Your task to perform on an android device: turn off picture-in-picture Image 0: 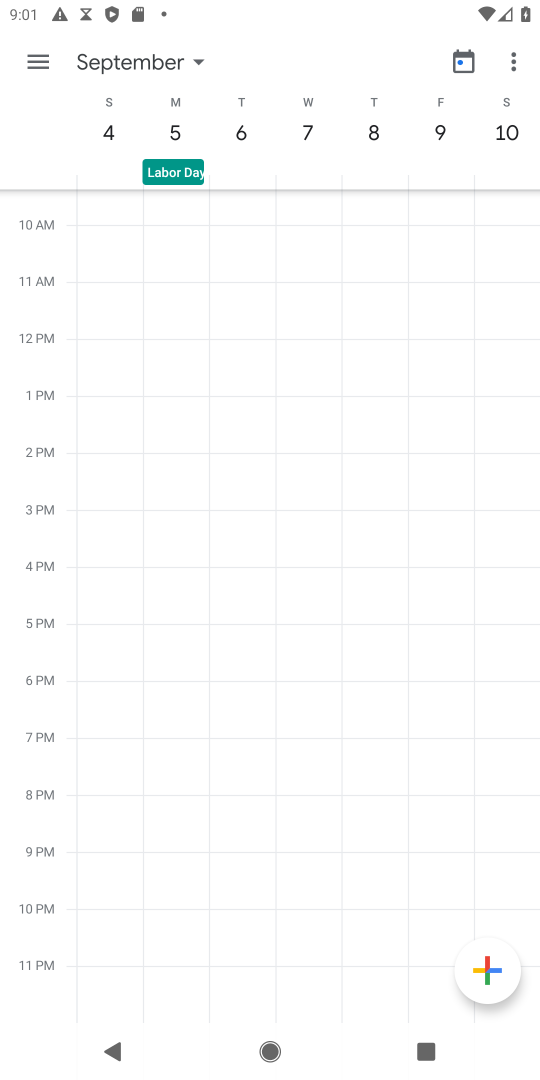
Step 0: press home button
Your task to perform on an android device: turn off picture-in-picture Image 1: 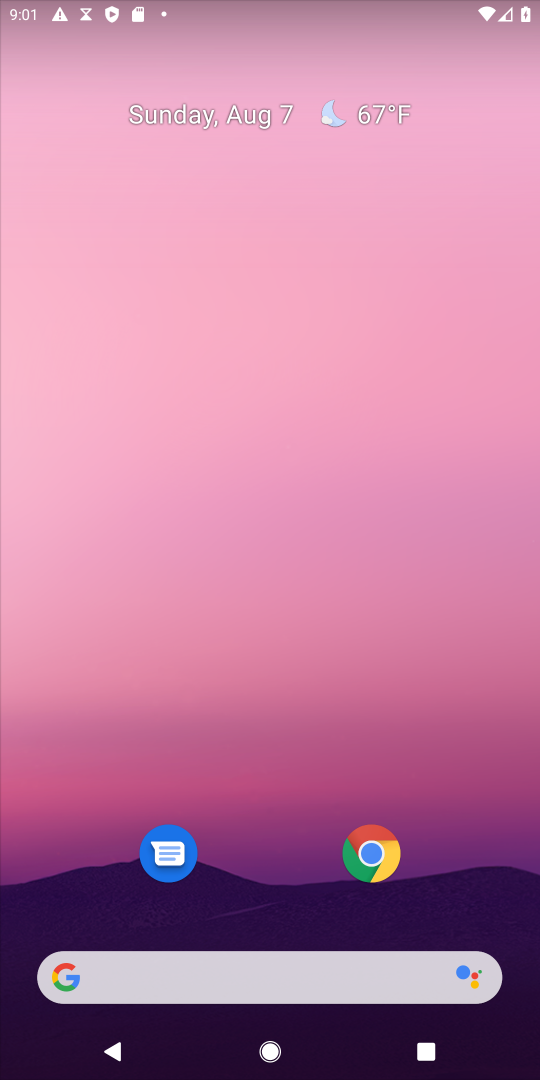
Step 1: drag from (271, 966) to (345, 141)
Your task to perform on an android device: turn off picture-in-picture Image 2: 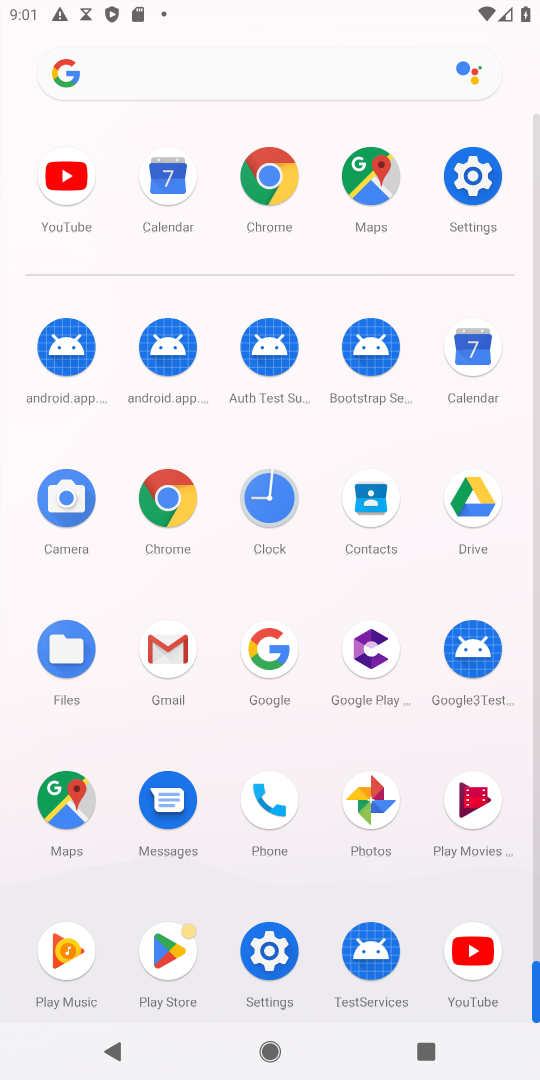
Step 2: click (479, 178)
Your task to perform on an android device: turn off picture-in-picture Image 3: 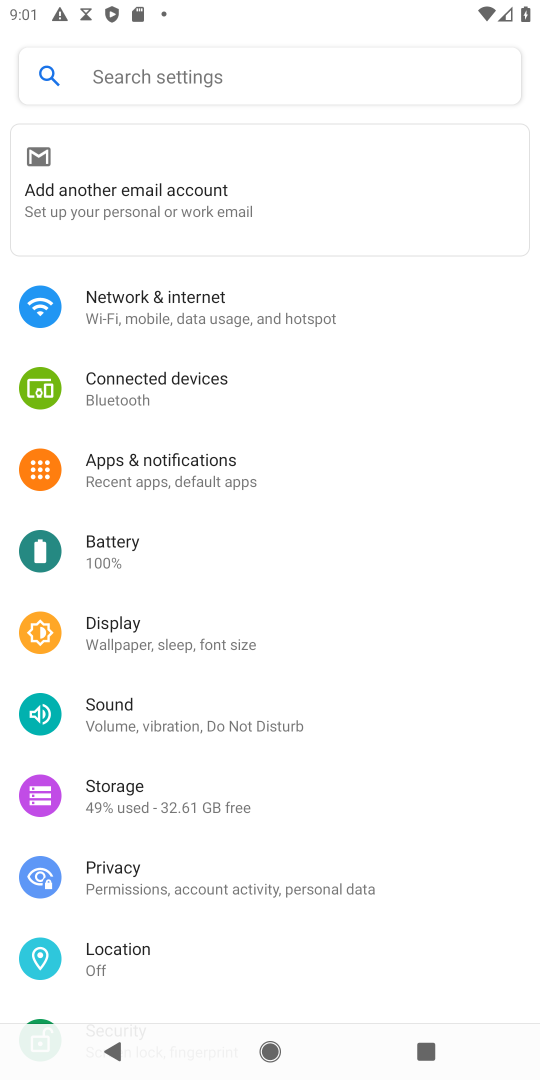
Step 3: click (187, 310)
Your task to perform on an android device: turn off picture-in-picture Image 4: 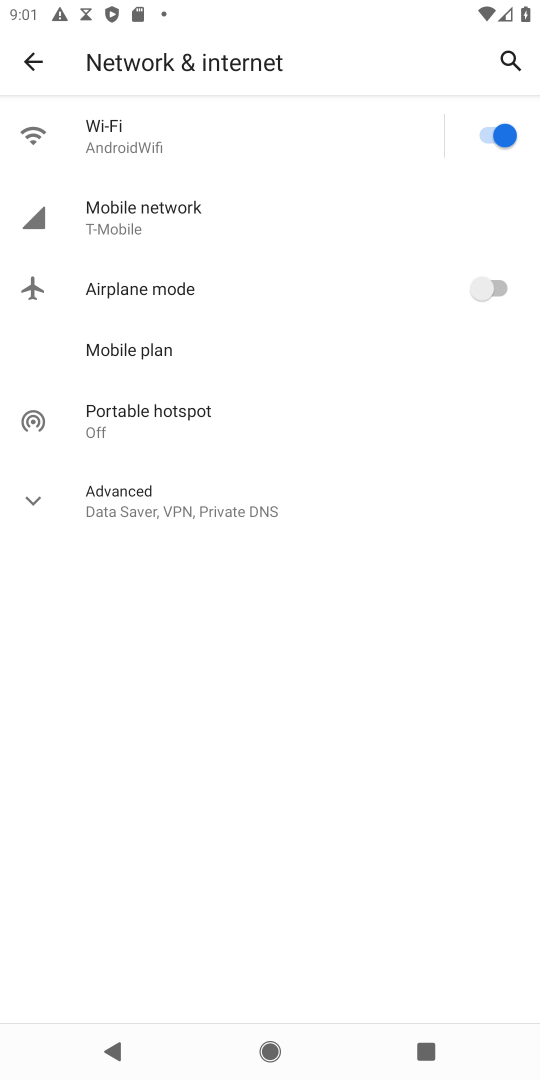
Step 4: click (52, 50)
Your task to perform on an android device: turn off picture-in-picture Image 5: 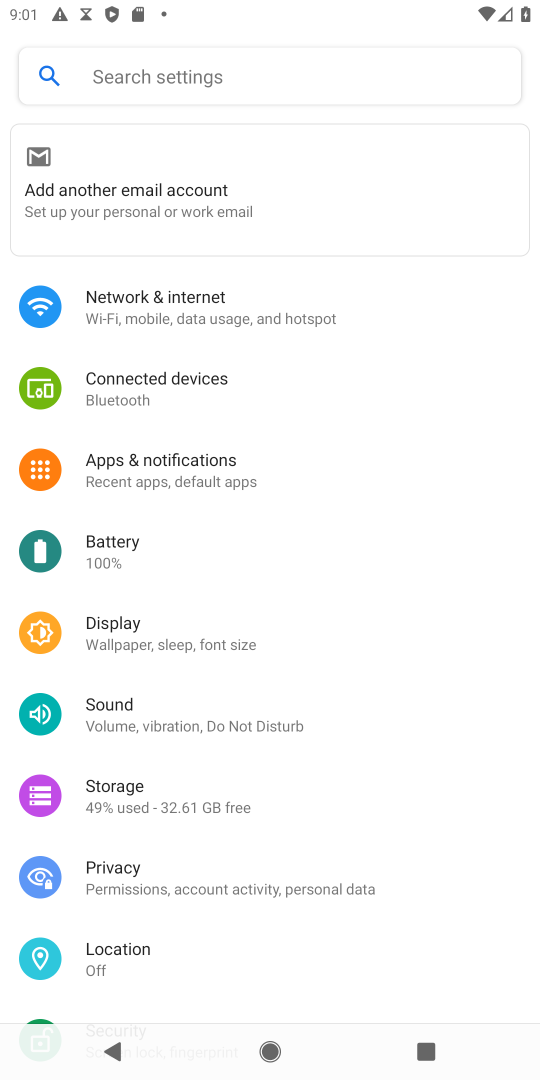
Step 5: click (206, 460)
Your task to perform on an android device: turn off picture-in-picture Image 6: 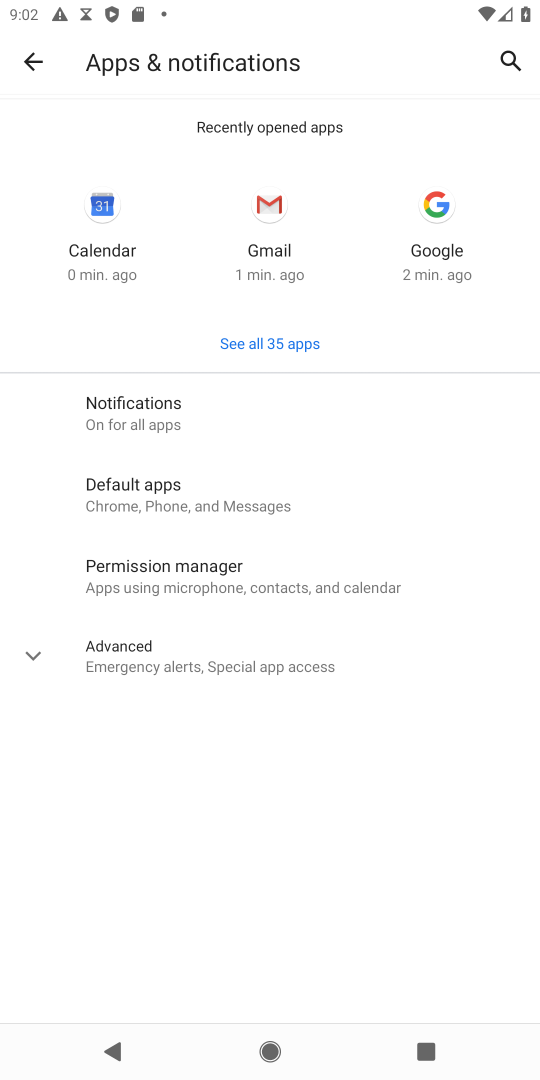
Step 6: click (193, 652)
Your task to perform on an android device: turn off picture-in-picture Image 7: 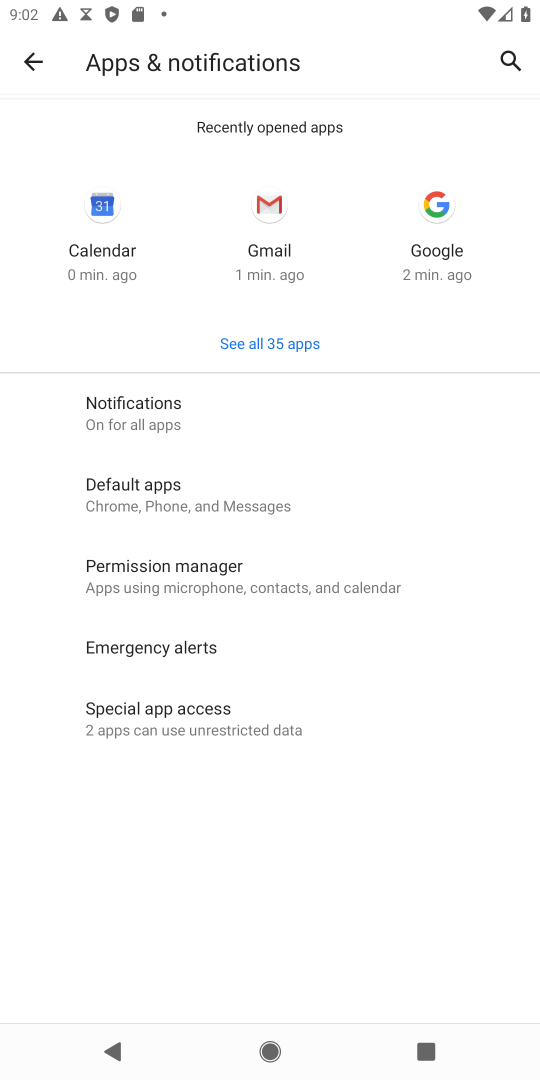
Step 7: click (213, 707)
Your task to perform on an android device: turn off picture-in-picture Image 8: 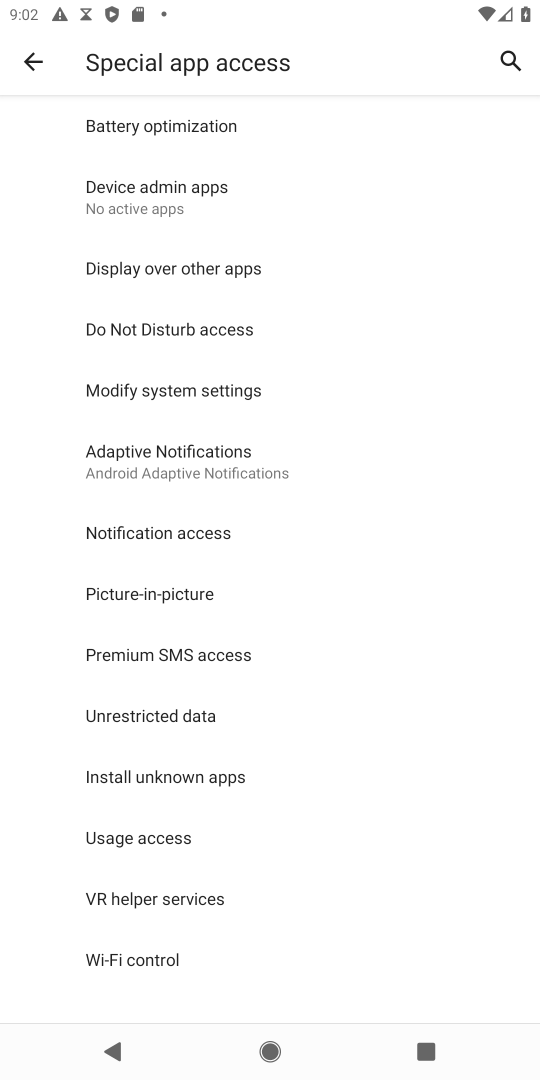
Step 8: click (195, 595)
Your task to perform on an android device: turn off picture-in-picture Image 9: 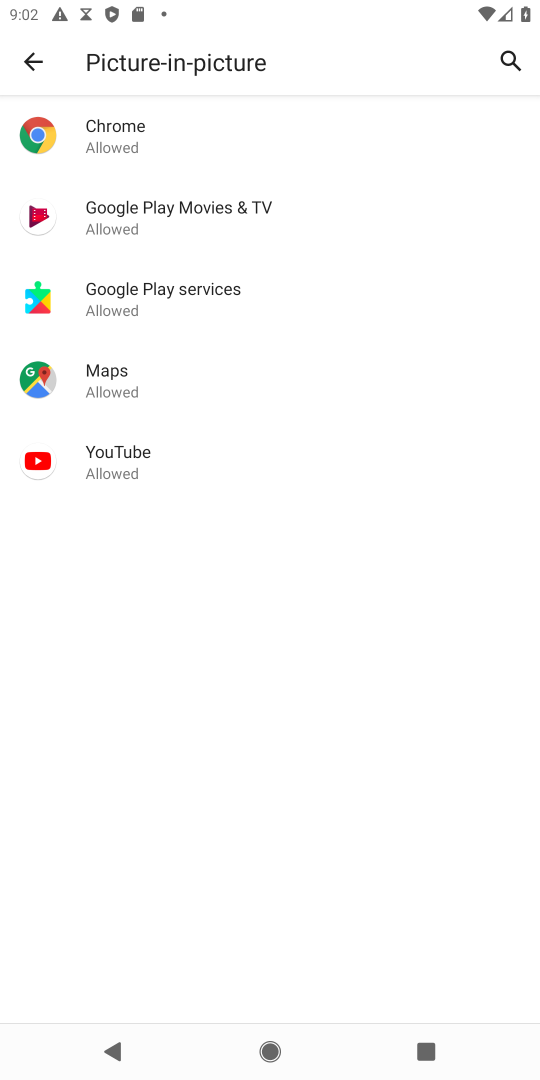
Step 9: click (109, 476)
Your task to perform on an android device: turn off picture-in-picture Image 10: 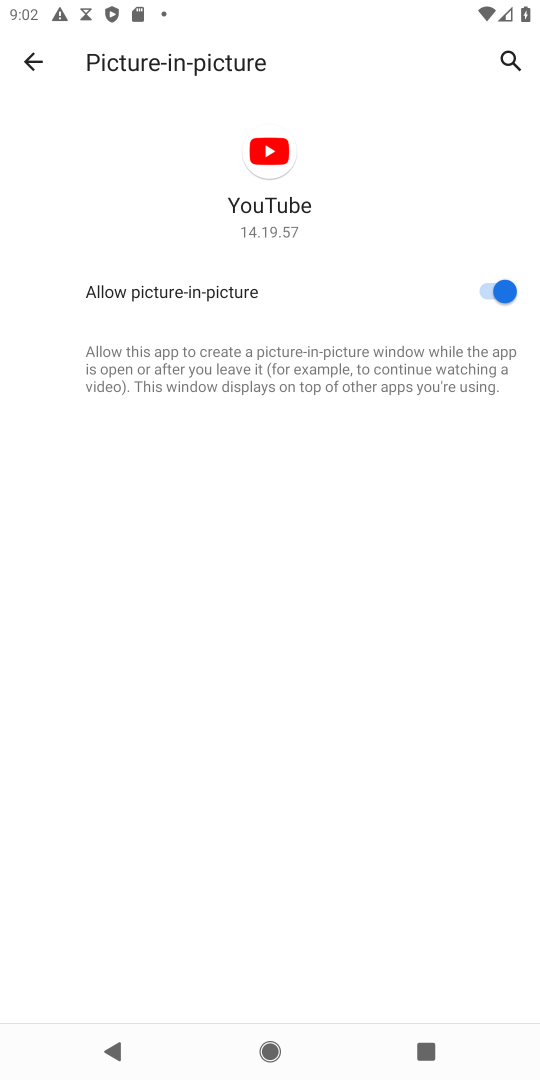
Step 10: click (497, 284)
Your task to perform on an android device: turn off picture-in-picture Image 11: 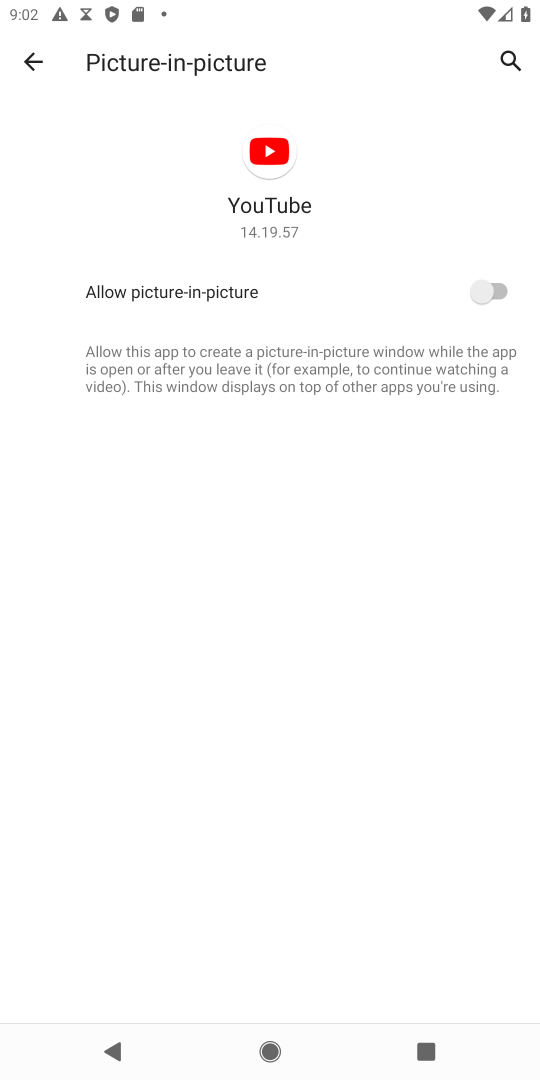
Step 11: task complete